Your task to perform on an android device: When is my next appointment? Image 0: 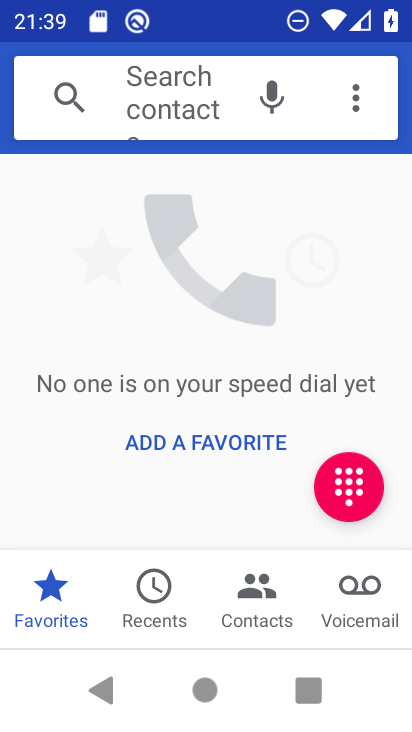
Step 0: press home button
Your task to perform on an android device: When is my next appointment? Image 1: 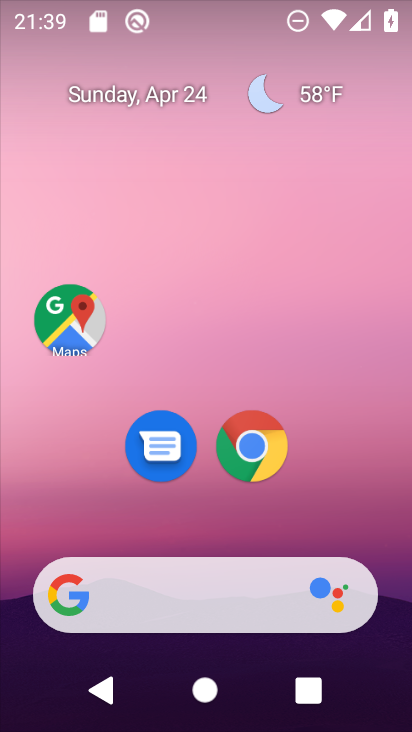
Step 1: drag from (229, 397) to (308, 89)
Your task to perform on an android device: When is my next appointment? Image 2: 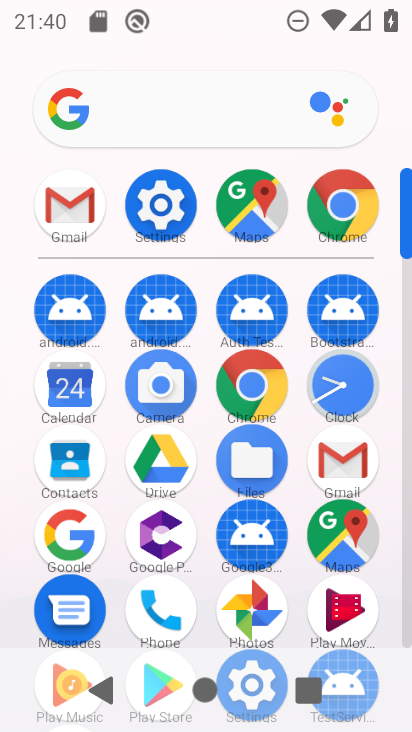
Step 2: click (79, 405)
Your task to perform on an android device: When is my next appointment? Image 3: 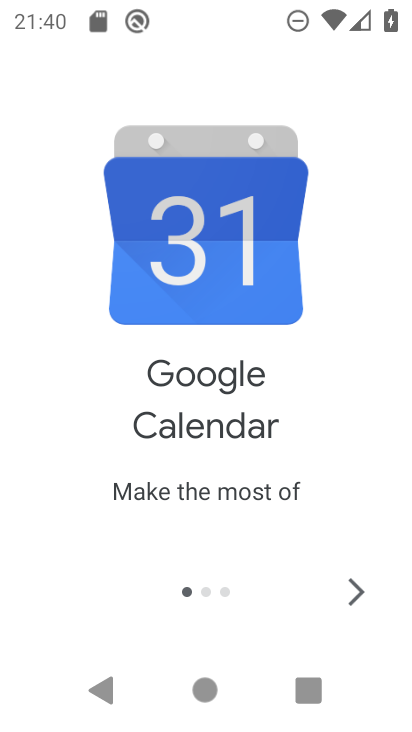
Step 3: click (357, 587)
Your task to perform on an android device: When is my next appointment? Image 4: 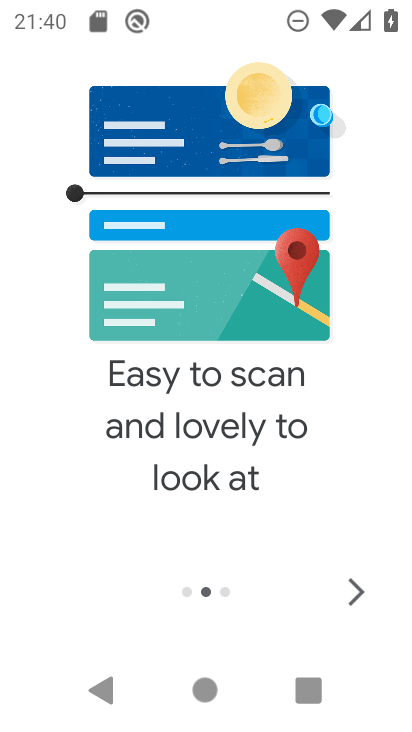
Step 4: click (357, 587)
Your task to perform on an android device: When is my next appointment? Image 5: 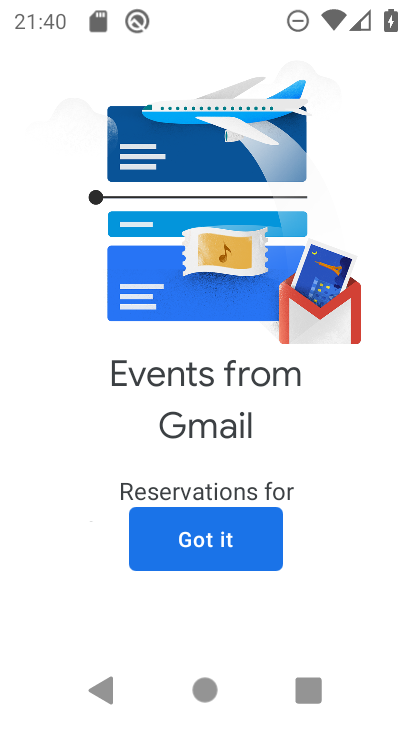
Step 5: click (205, 525)
Your task to perform on an android device: When is my next appointment? Image 6: 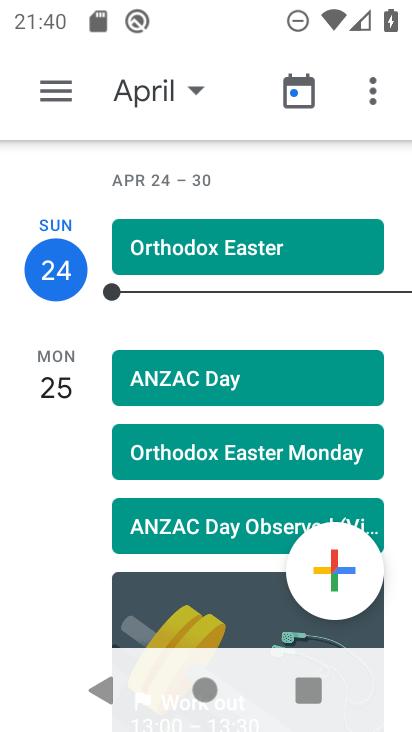
Step 6: drag from (152, 600) to (282, 147)
Your task to perform on an android device: When is my next appointment? Image 7: 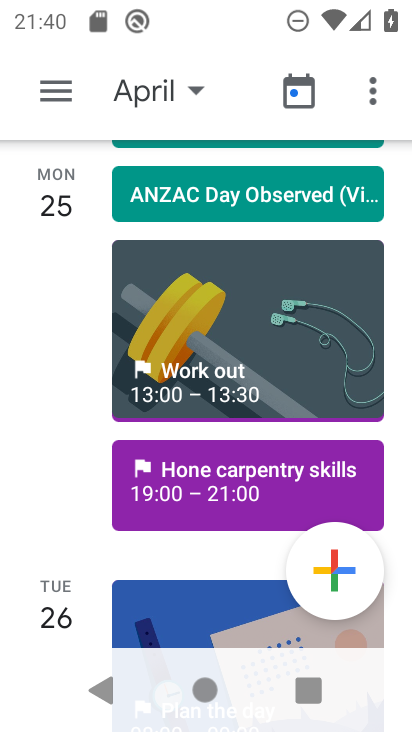
Step 7: click (55, 84)
Your task to perform on an android device: When is my next appointment? Image 8: 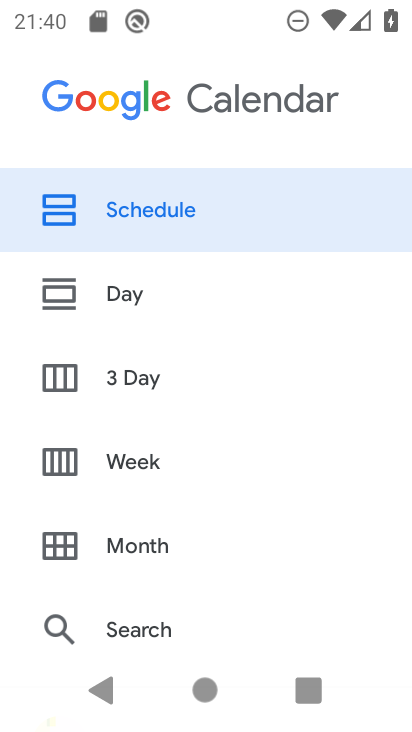
Step 8: click (132, 214)
Your task to perform on an android device: When is my next appointment? Image 9: 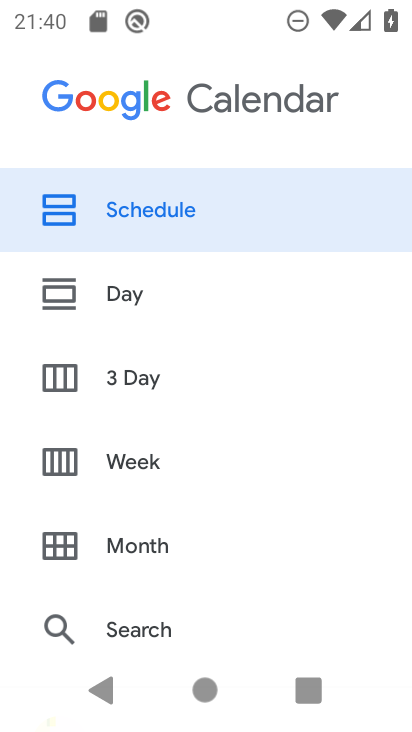
Step 9: click (149, 207)
Your task to perform on an android device: When is my next appointment? Image 10: 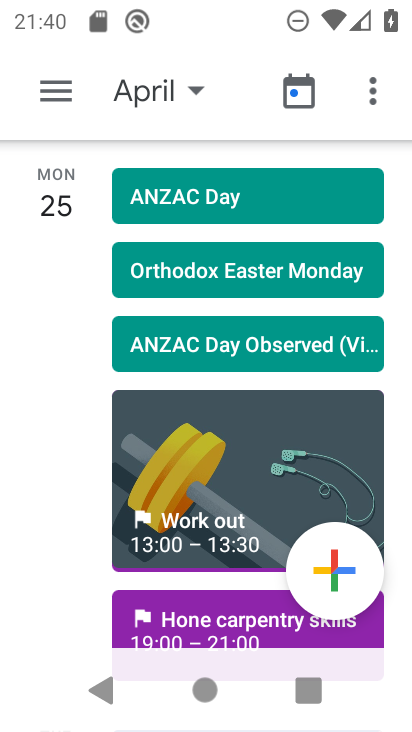
Step 10: drag from (176, 505) to (313, 181)
Your task to perform on an android device: When is my next appointment? Image 11: 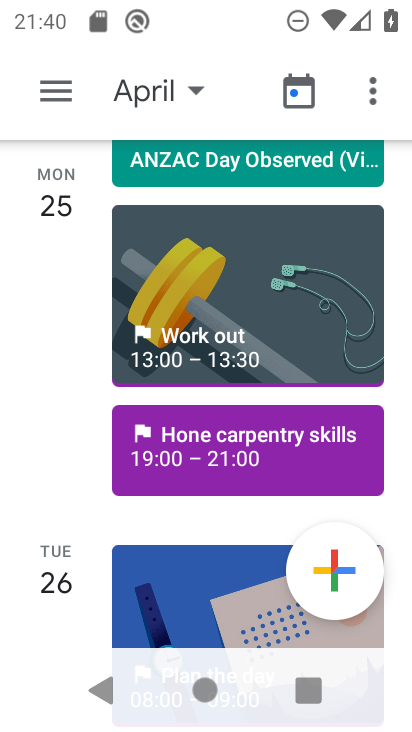
Step 11: click (201, 430)
Your task to perform on an android device: When is my next appointment? Image 12: 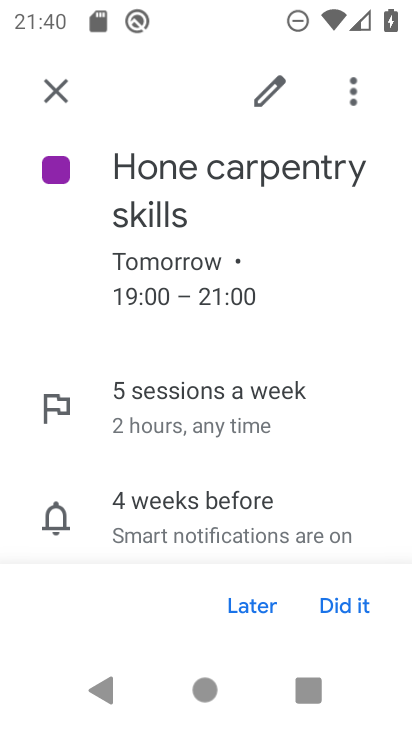
Step 12: task complete